Your task to perform on an android device: check android version Image 0: 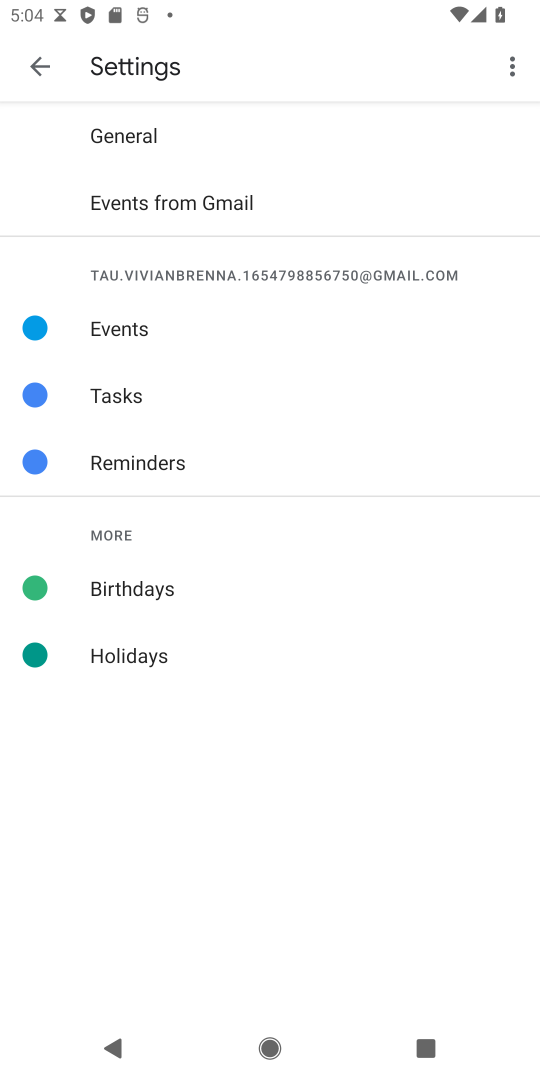
Step 0: press home button
Your task to perform on an android device: check android version Image 1: 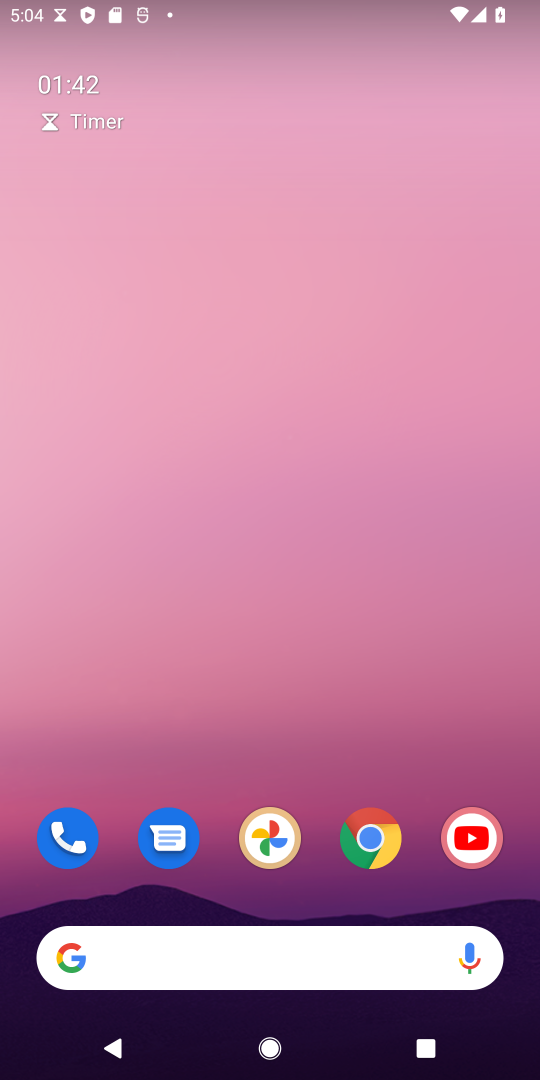
Step 1: drag from (384, 754) to (317, 112)
Your task to perform on an android device: check android version Image 2: 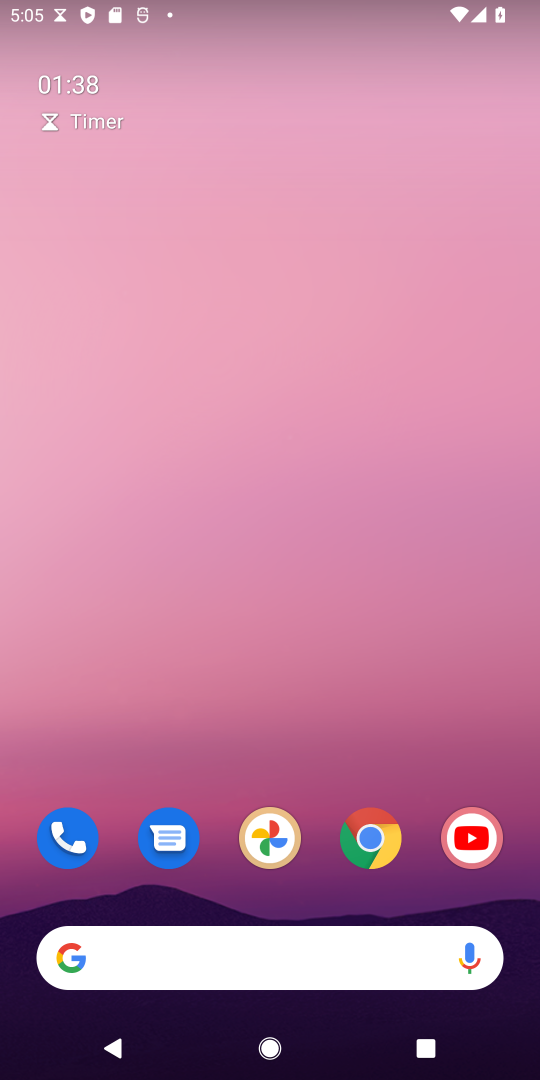
Step 2: drag from (422, 793) to (332, 146)
Your task to perform on an android device: check android version Image 3: 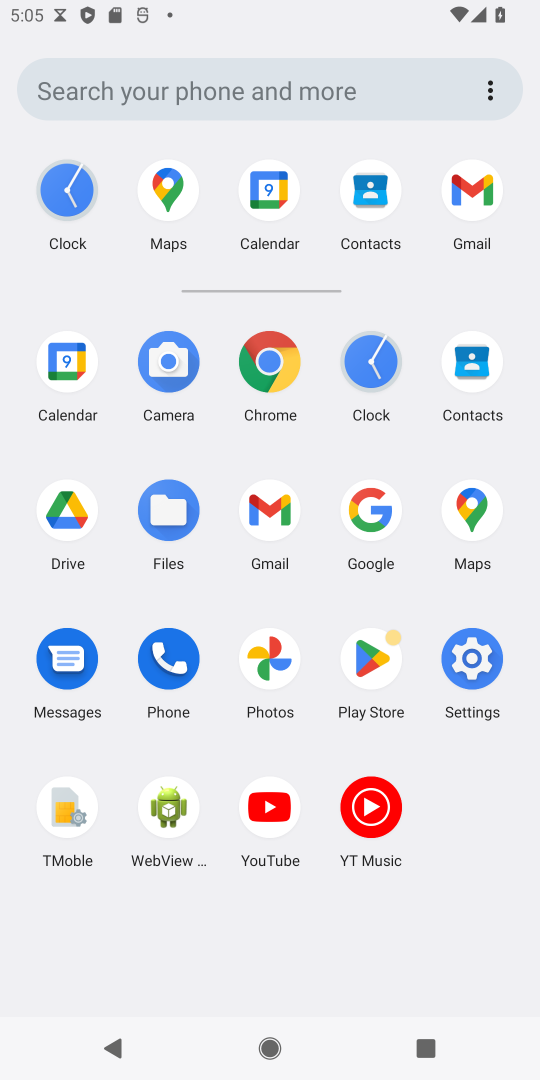
Step 3: click (482, 660)
Your task to perform on an android device: check android version Image 4: 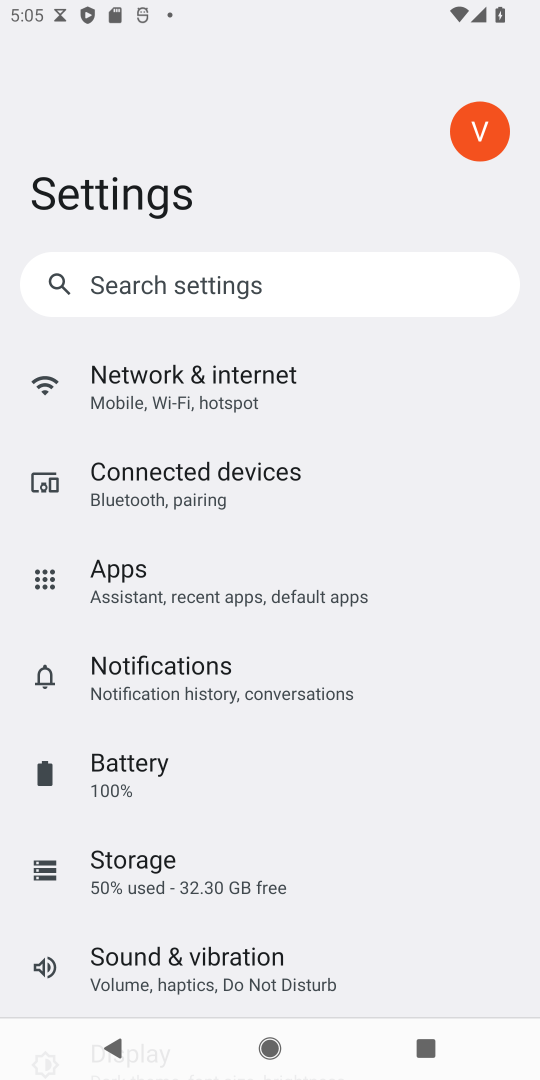
Step 4: drag from (370, 985) to (230, 34)
Your task to perform on an android device: check android version Image 5: 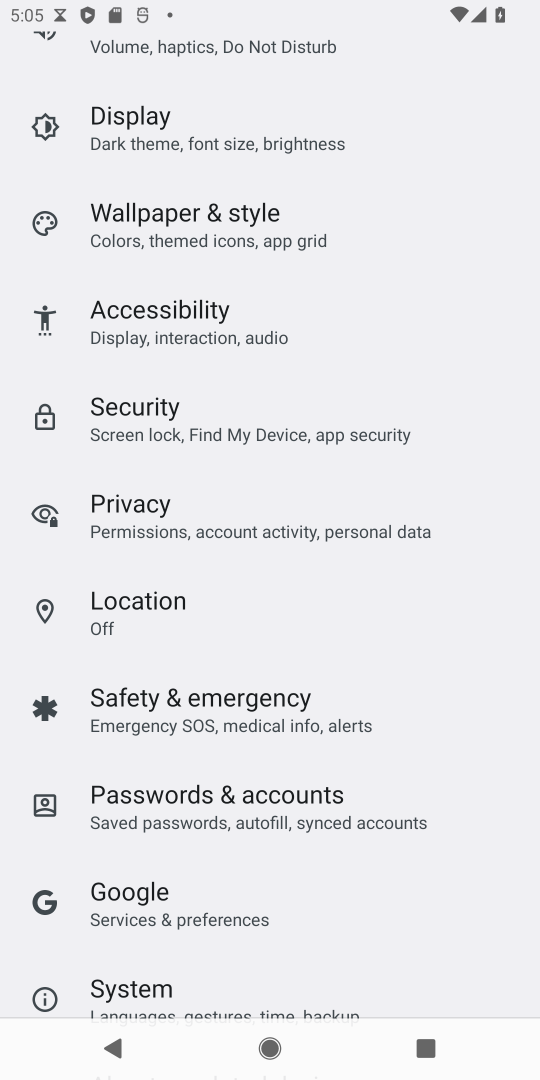
Step 5: drag from (282, 971) to (248, 307)
Your task to perform on an android device: check android version Image 6: 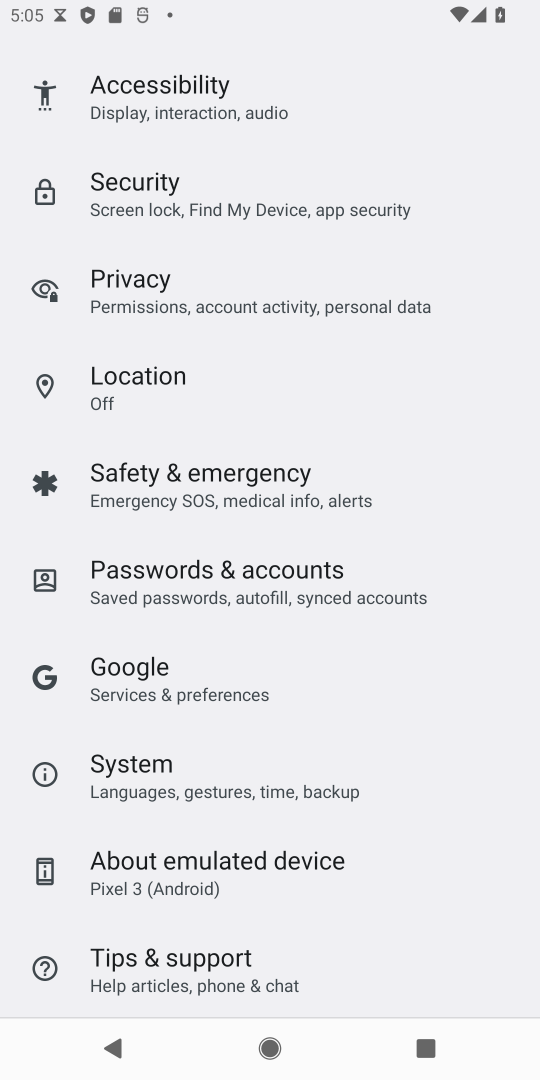
Step 6: click (353, 884)
Your task to perform on an android device: check android version Image 7: 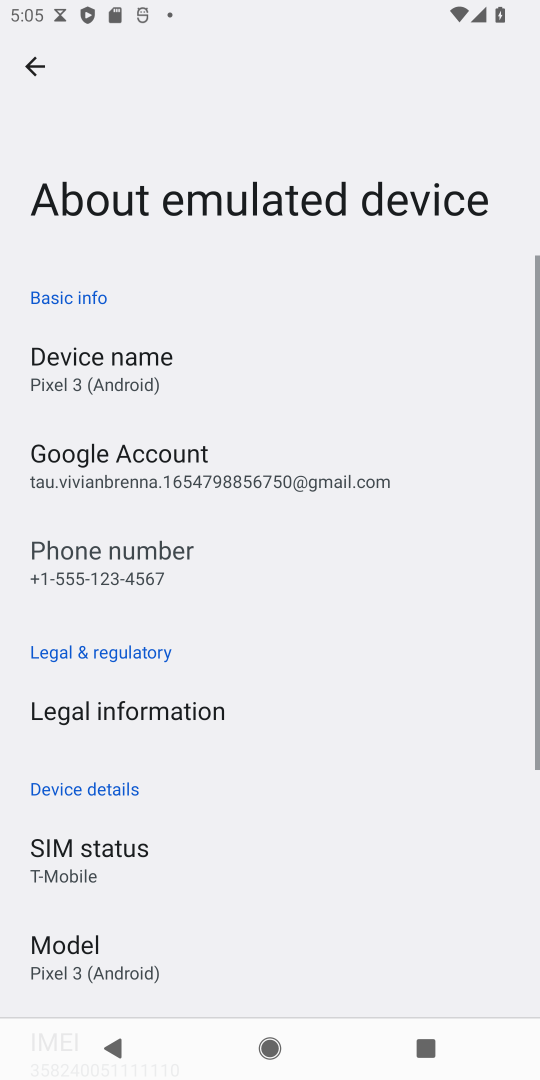
Step 7: drag from (372, 949) to (215, 71)
Your task to perform on an android device: check android version Image 8: 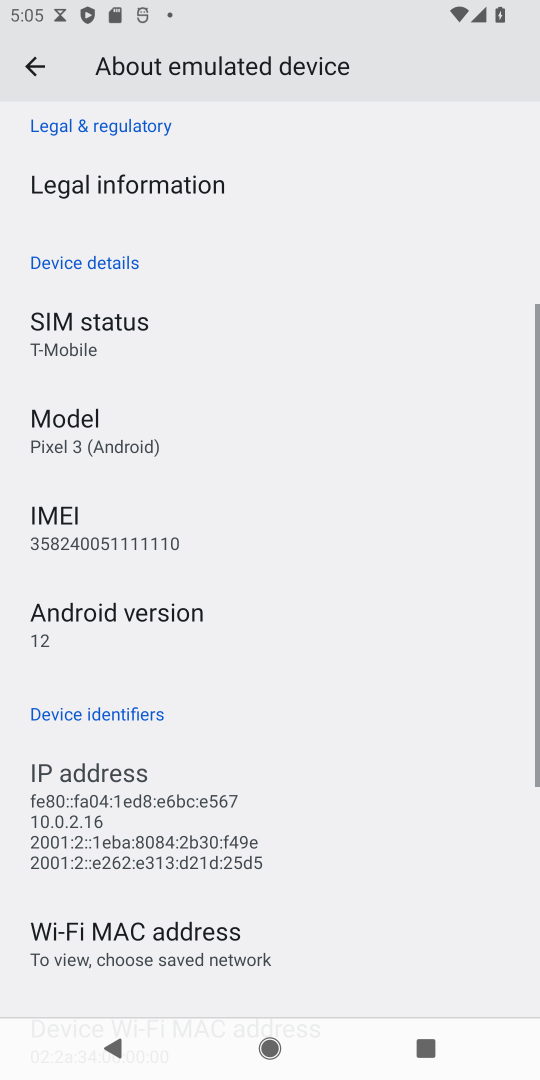
Step 8: click (199, 617)
Your task to perform on an android device: check android version Image 9: 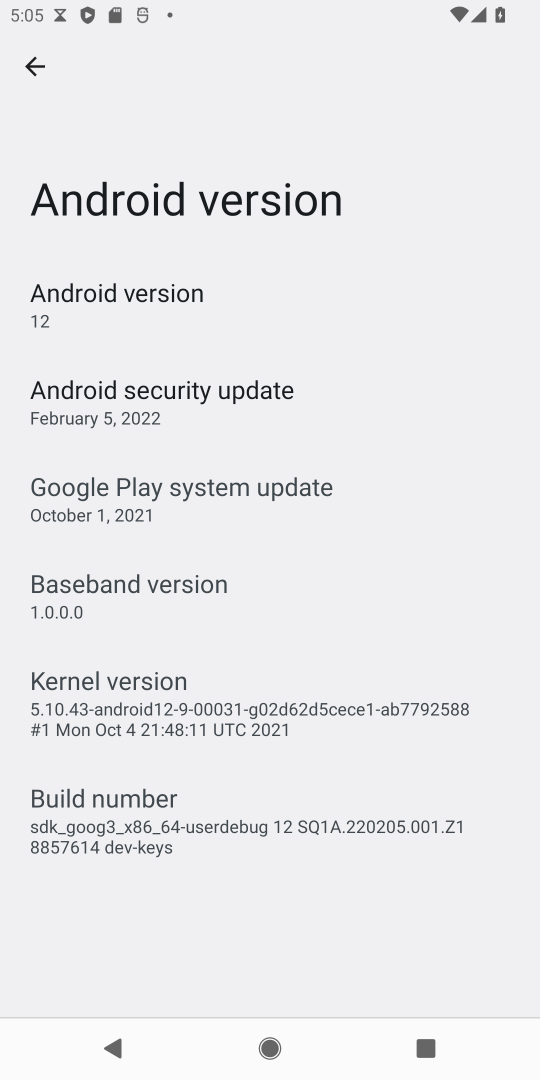
Step 9: task complete